Your task to perform on an android device: turn on bluetooth scan Image 0: 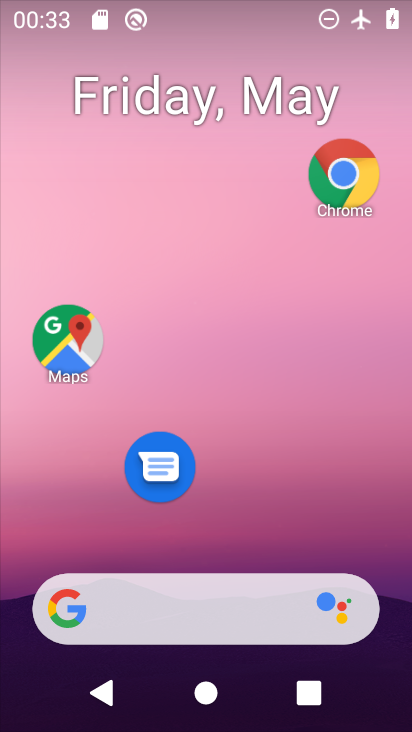
Step 0: drag from (239, 501) to (245, 208)
Your task to perform on an android device: turn on bluetooth scan Image 1: 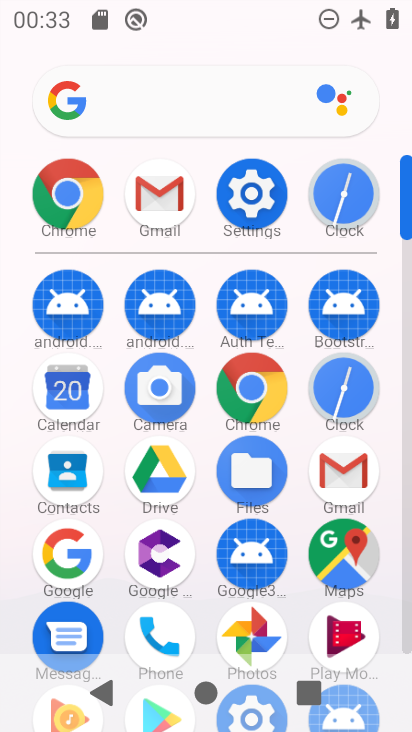
Step 1: click (242, 191)
Your task to perform on an android device: turn on bluetooth scan Image 2: 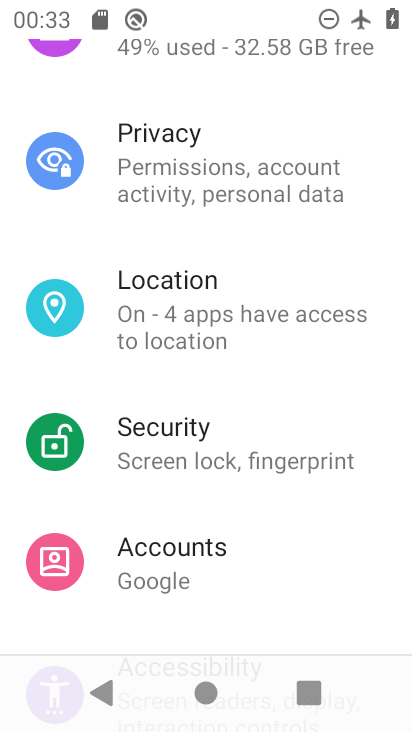
Step 2: drag from (204, 195) to (186, 618)
Your task to perform on an android device: turn on bluetooth scan Image 3: 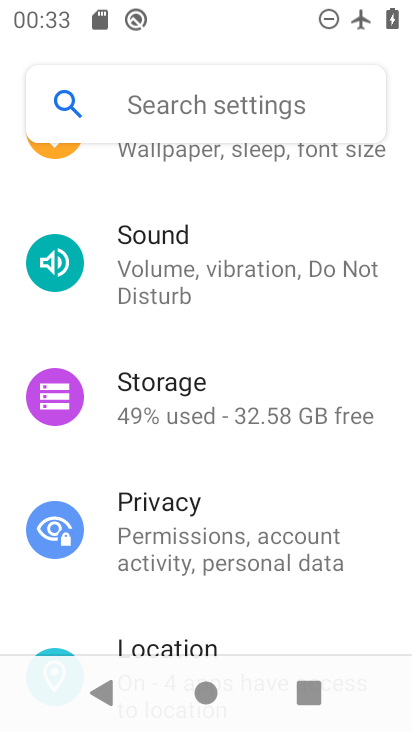
Step 3: click (200, 112)
Your task to perform on an android device: turn on bluetooth scan Image 4: 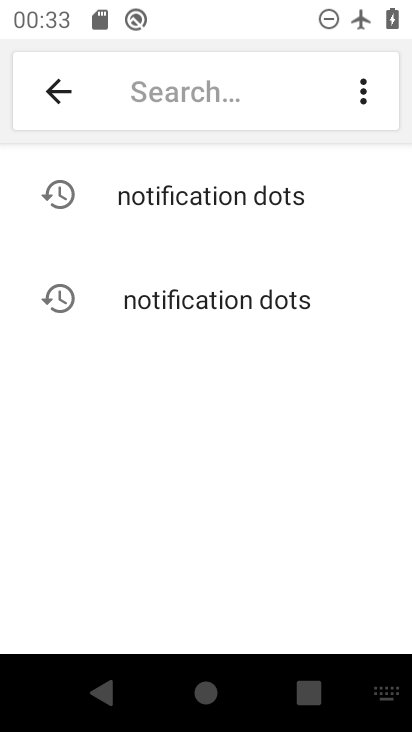
Step 4: type " bluetooth scan"
Your task to perform on an android device: turn on bluetooth scan Image 5: 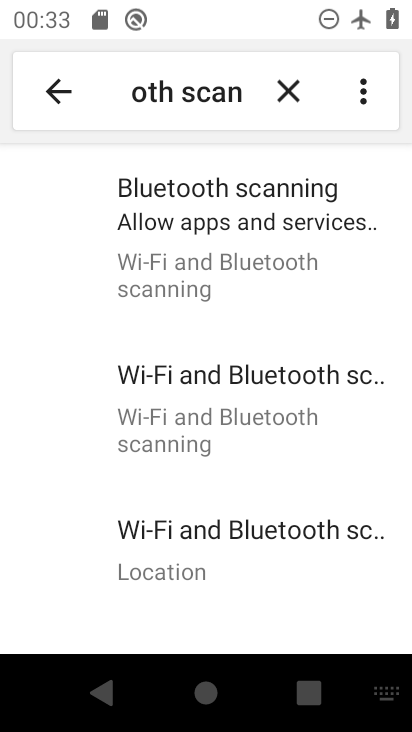
Step 5: click (254, 264)
Your task to perform on an android device: turn on bluetooth scan Image 6: 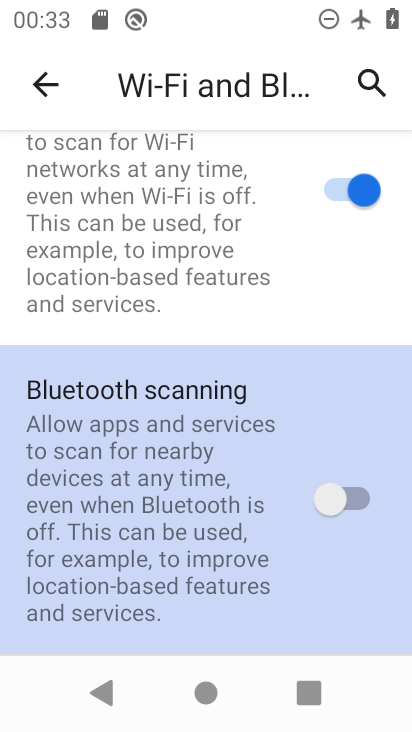
Step 6: click (350, 493)
Your task to perform on an android device: turn on bluetooth scan Image 7: 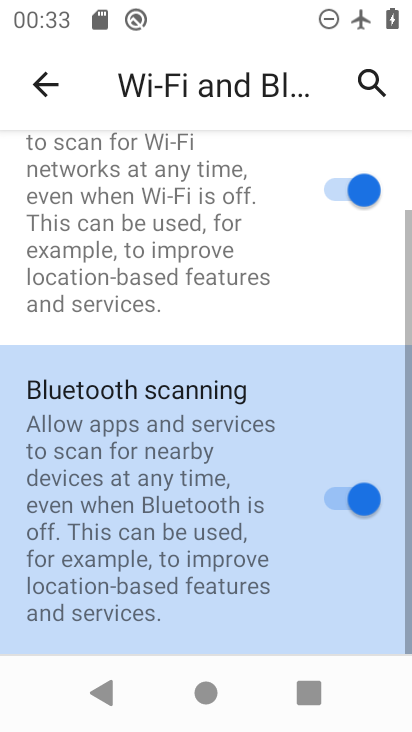
Step 7: task complete